Your task to perform on an android device: check out phone information Image 0: 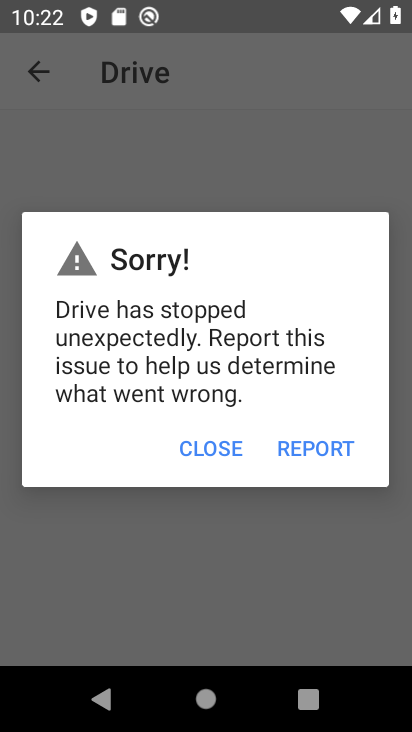
Step 0: press home button
Your task to perform on an android device: check out phone information Image 1: 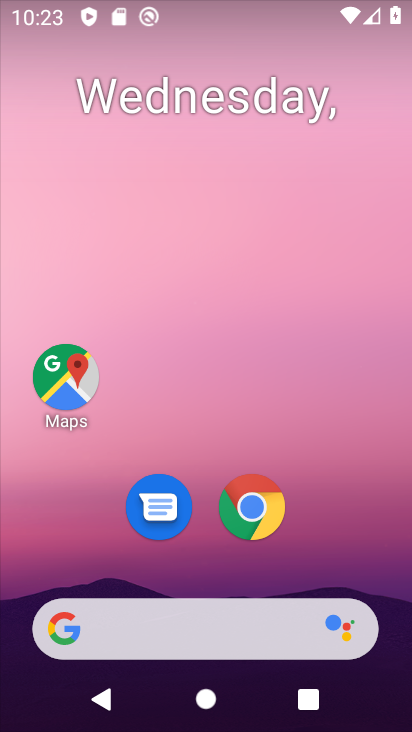
Step 1: drag from (248, 626) to (250, 169)
Your task to perform on an android device: check out phone information Image 2: 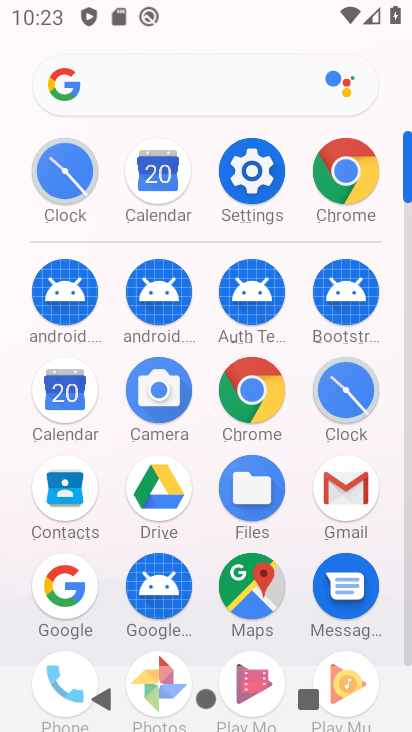
Step 2: click (251, 198)
Your task to perform on an android device: check out phone information Image 3: 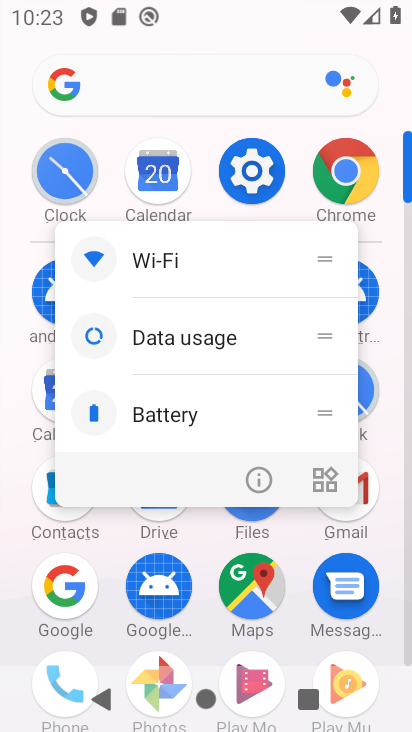
Step 3: click (252, 196)
Your task to perform on an android device: check out phone information Image 4: 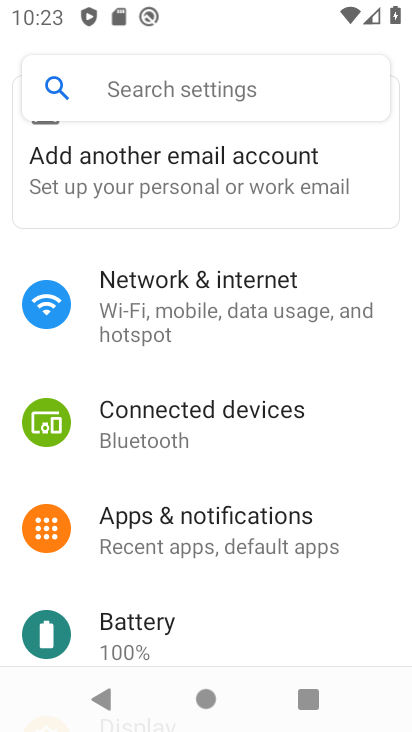
Step 4: click (171, 88)
Your task to perform on an android device: check out phone information Image 5: 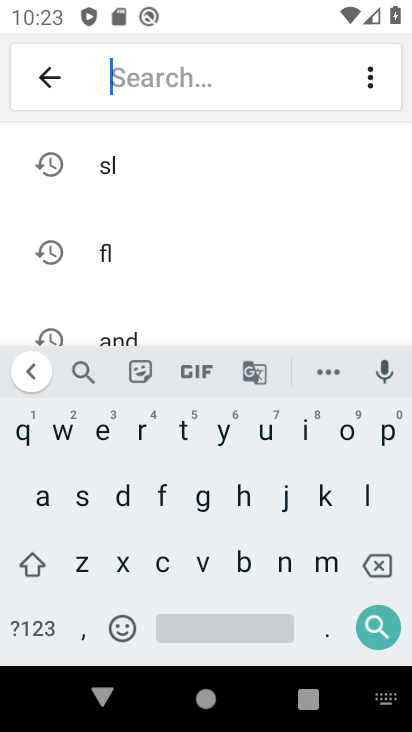
Step 5: click (382, 437)
Your task to perform on an android device: check out phone information Image 6: 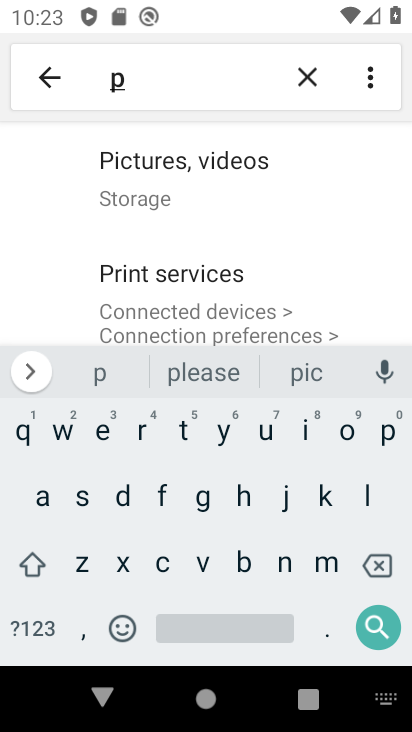
Step 6: click (382, 574)
Your task to perform on an android device: check out phone information Image 7: 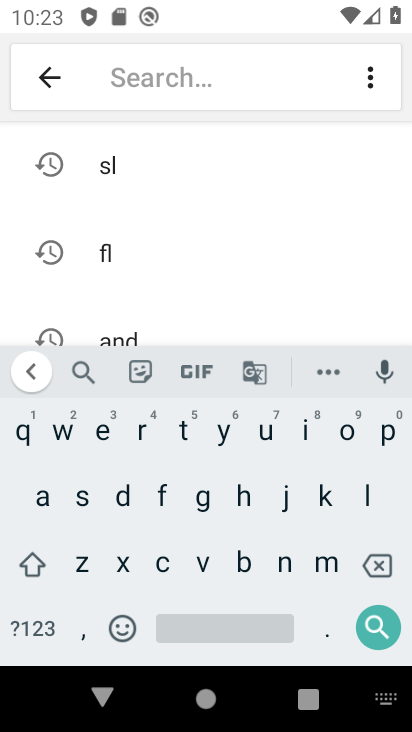
Step 7: click (37, 498)
Your task to perform on an android device: check out phone information Image 8: 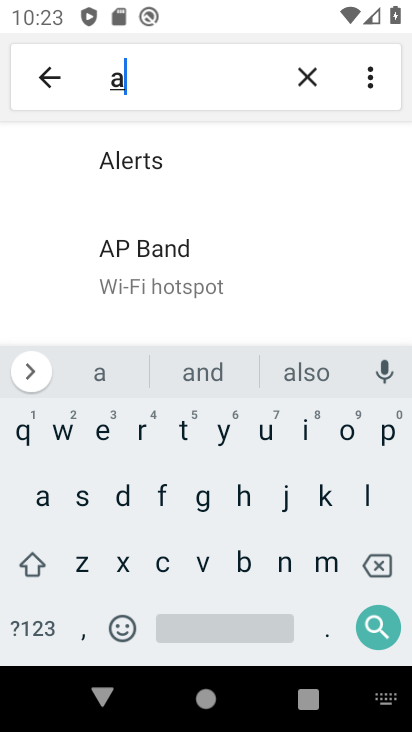
Step 8: click (241, 564)
Your task to perform on an android device: check out phone information Image 9: 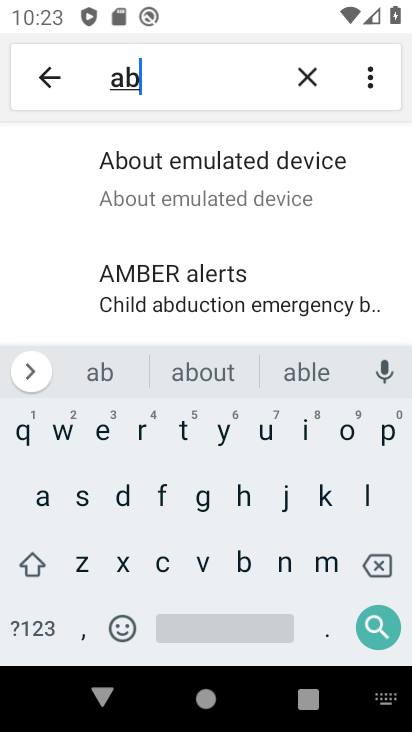
Step 9: click (254, 170)
Your task to perform on an android device: check out phone information Image 10: 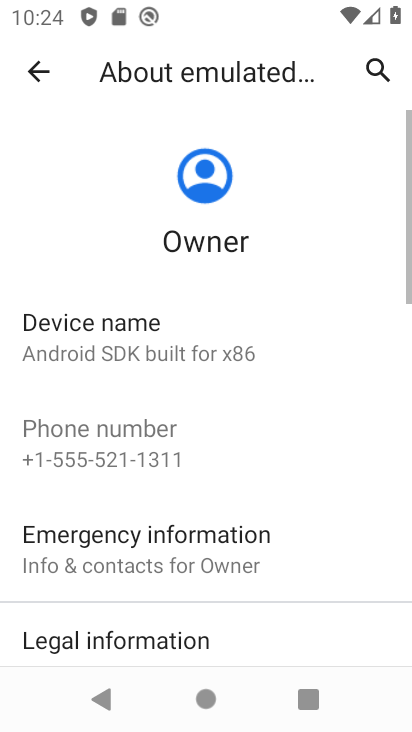
Step 10: task complete